Your task to perform on an android device: Open accessibility settings Image 0: 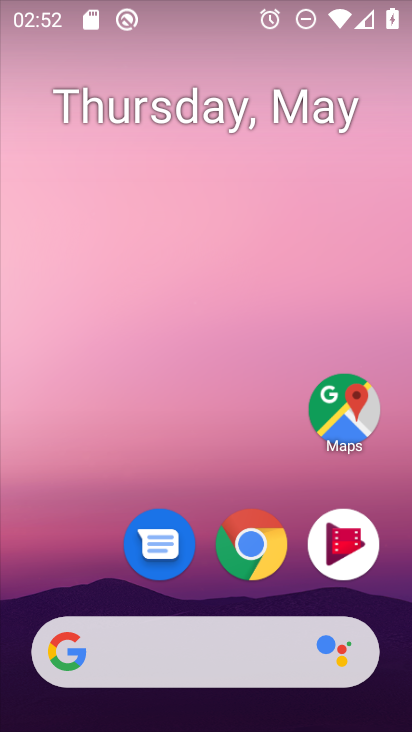
Step 0: drag from (288, 481) to (292, 160)
Your task to perform on an android device: Open accessibility settings Image 1: 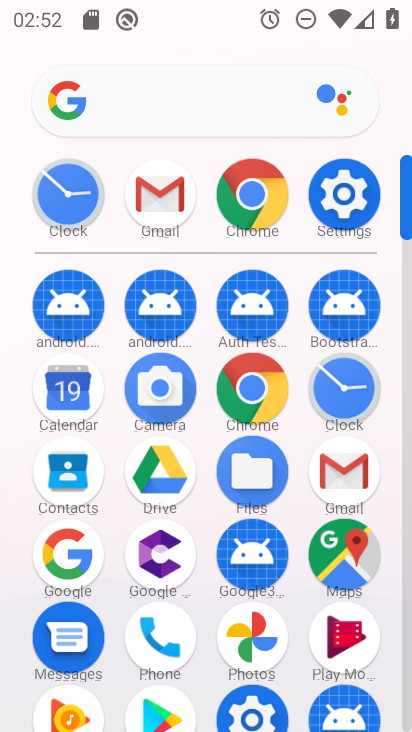
Step 1: click (354, 214)
Your task to perform on an android device: Open accessibility settings Image 2: 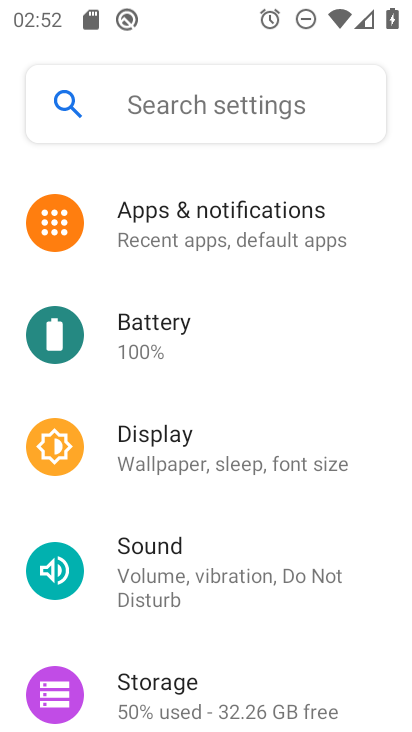
Step 2: drag from (375, 261) to (375, 358)
Your task to perform on an android device: Open accessibility settings Image 3: 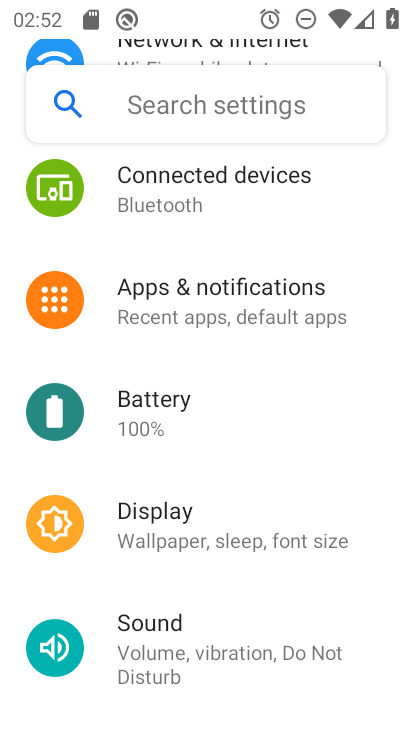
Step 3: drag from (375, 235) to (376, 346)
Your task to perform on an android device: Open accessibility settings Image 4: 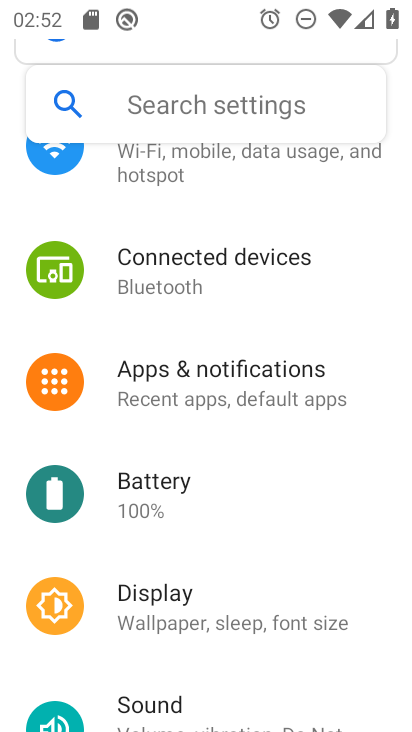
Step 4: drag from (362, 235) to (361, 327)
Your task to perform on an android device: Open accessibility settings Image 5: 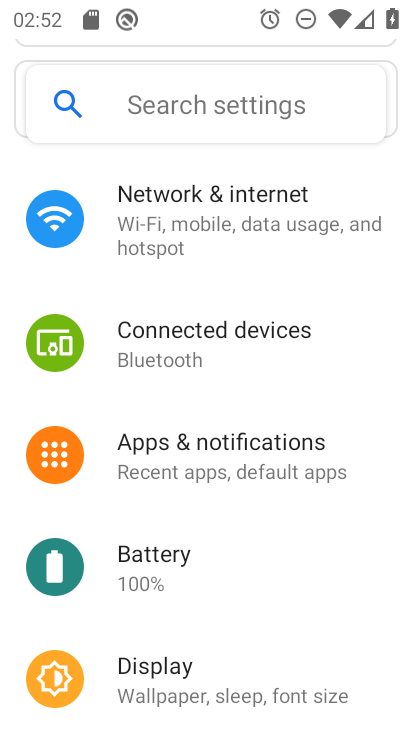
Step 5: drag from (353, 189) to (352, 320)
Your task to perform on an android device: Open accessibility settings Image 6: 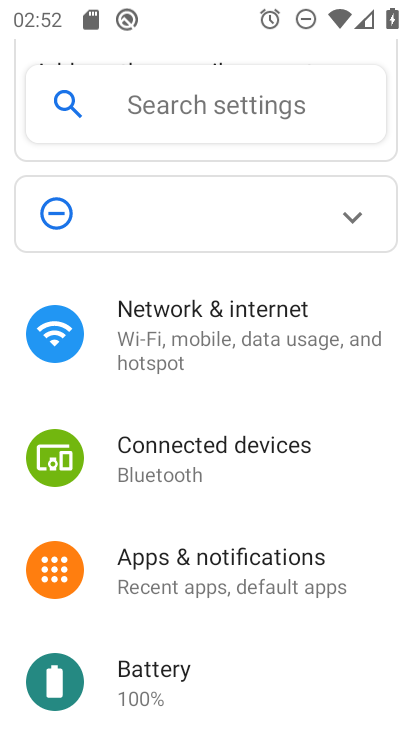
Step 6: drag from (349, 493) to (335, 381)
Your task to perform on an android device: Open accessibility settings Image 7: 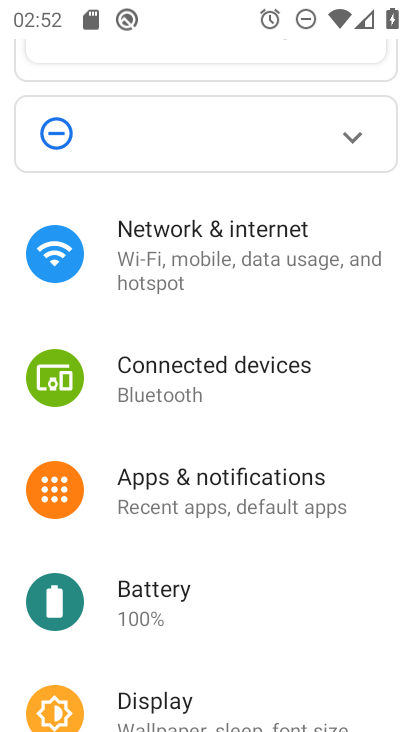
Step 7: drag from (346, 521) to (337, 410)
Your task to perform on an android device: Open accessibility settings Image 8: 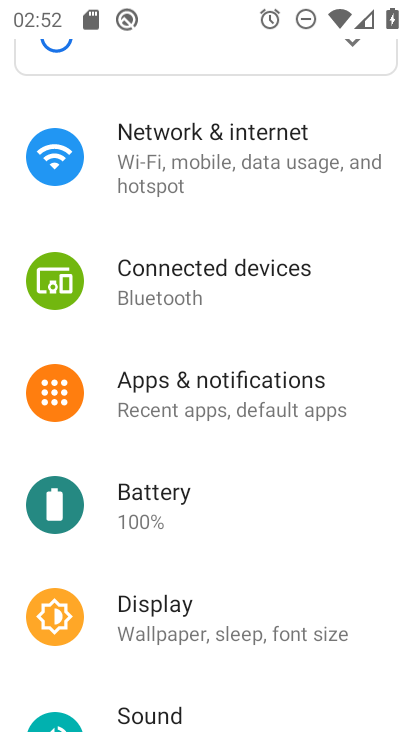
Step 8: drag from (349, 557) to (354, 456)
Your task to perform on an android device: Open accessibility settings Image 9: 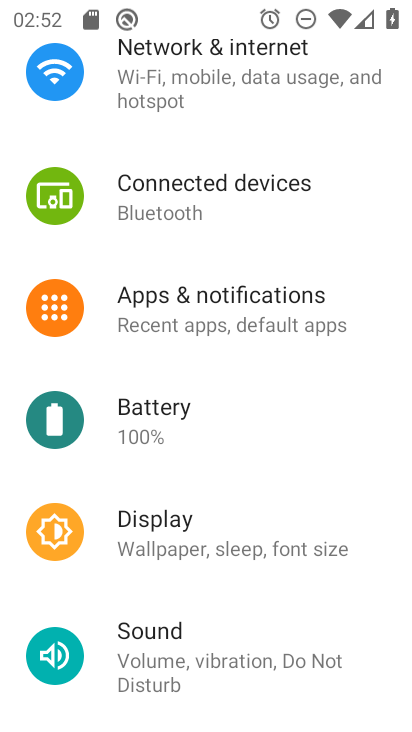
Step 9: drag from (358, 571) to (360, 456)
Your task to perform on an android device: Open accessibility settings Image 10: 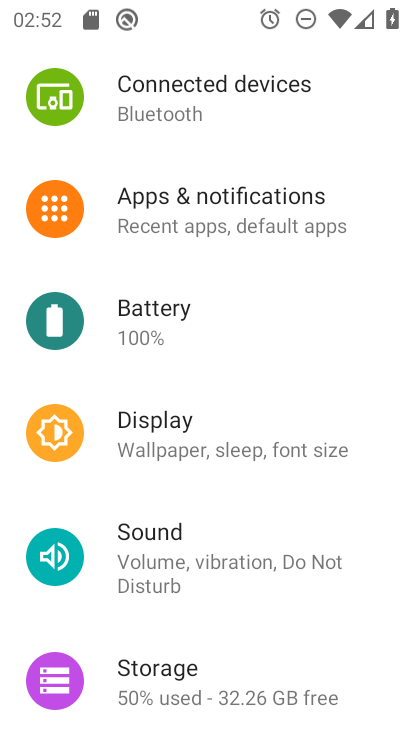
Step 10: drag from (355, 612) to (355, 517)
Your task to perform on an android device: Open accessibility settings Image 11: 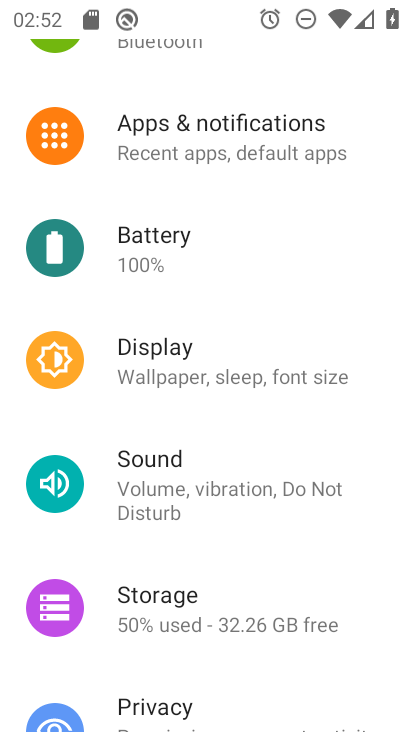
Step 11: drag from (365, 642) to (359, 544)
Your task to perform on an android device: Open accessibility settings Image 12: 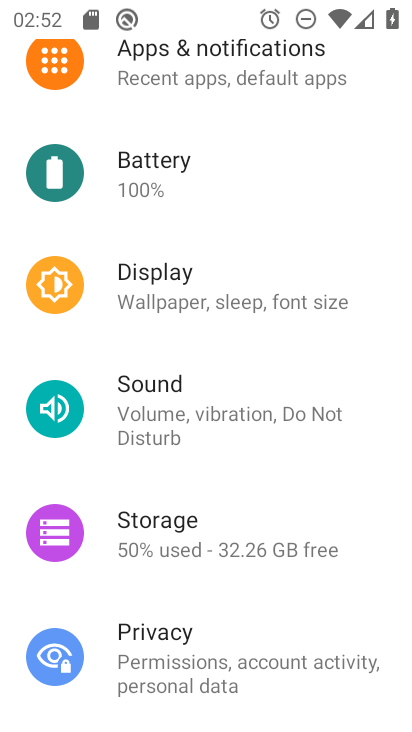
Step 12: drag from (355, 640) to (356, 564)
Your task to perform on an android device: Open accessibility settings Image 13: 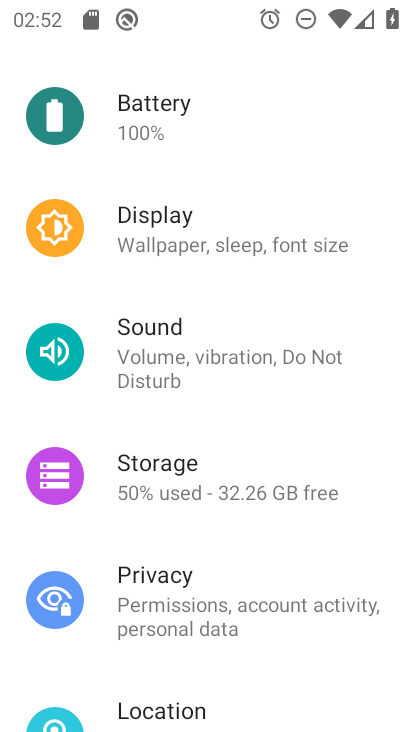
Step 13: drag from (358, 679) to (356, 549)
Your task to perform on an android device: Open accessibility settings Image 14: 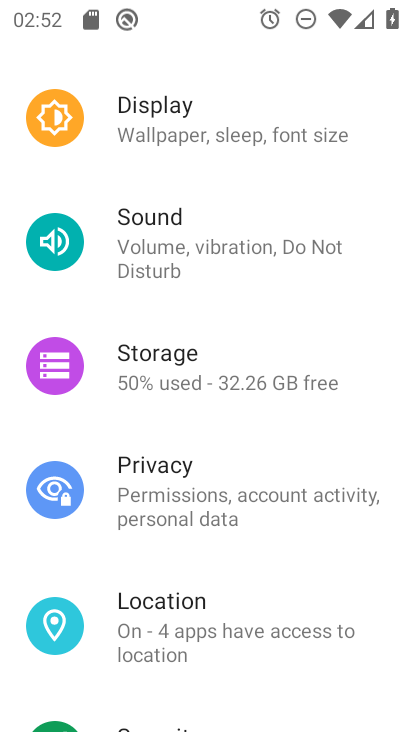
Step 14: drag from (343, 677) to (344, 572)
Your task to perform on an android device: Open accessibility settings Image 15: 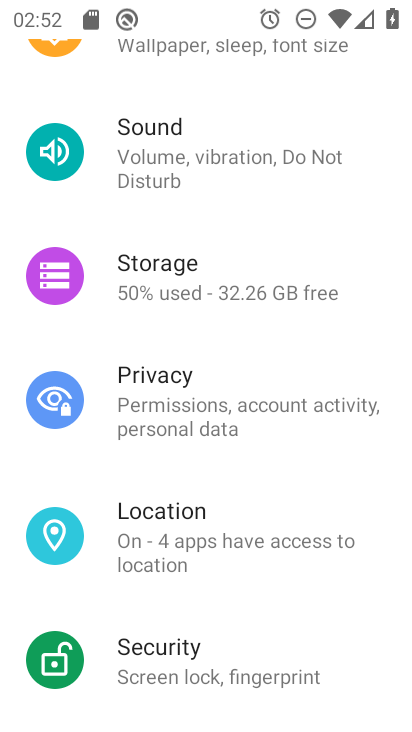
Step 15: drag from (327, 695) to (333, 607)
Your task to perform on an android device: Open accessibility settings Image 16: 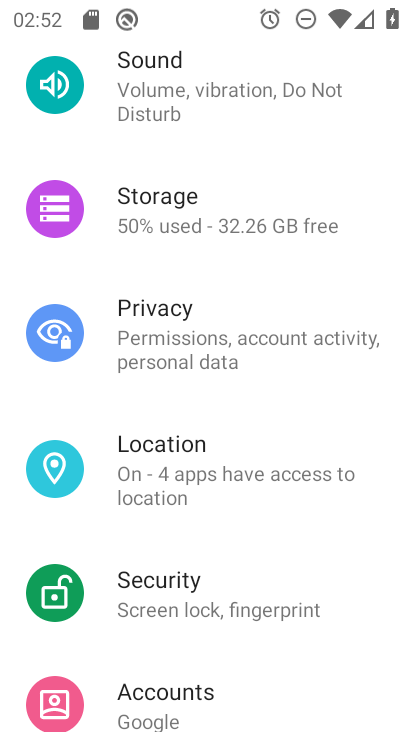
Step 16: drag from (342, 702) to (343, 588)
Your task to perform on an android device: Open accessibility settings Image 17: 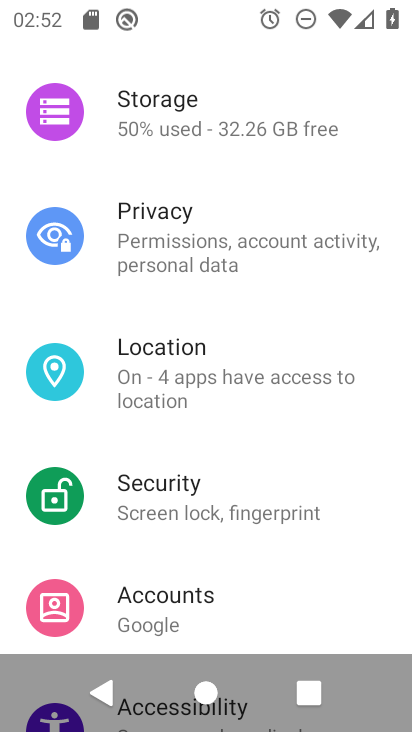
Step 17: drag from (342, 618) to (345, 507)
Your task to perform on an android device: Open accessibility settings Image 18: 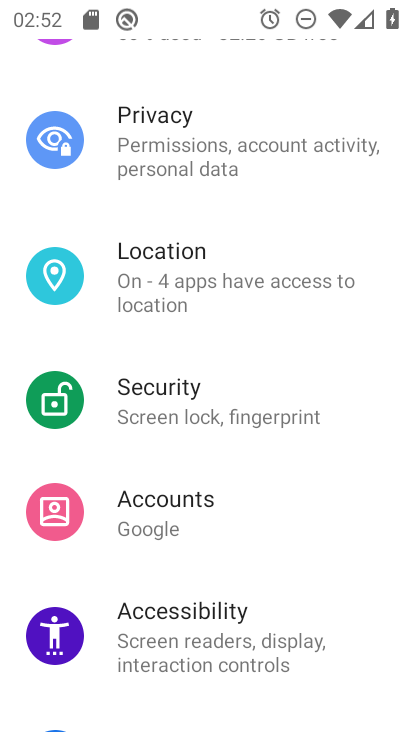
Step 18: drag from (347, 592) to (349, 491)
Your task to perform on an android device: Open accessibility settings Image 19: 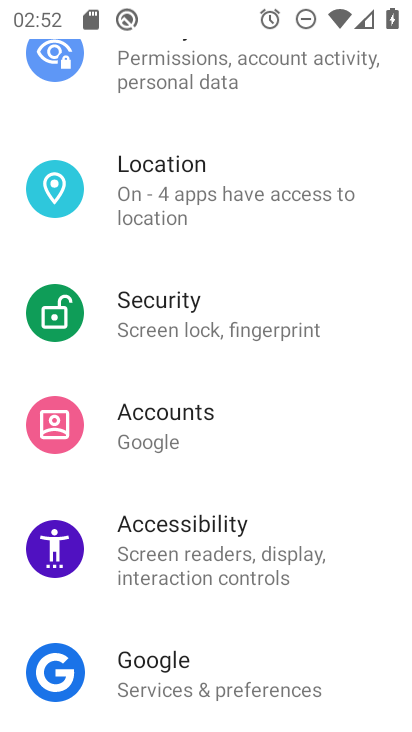
Step 19: click (288, 556)
Your task to perform on an android device: Open accessibility settings Image 20: 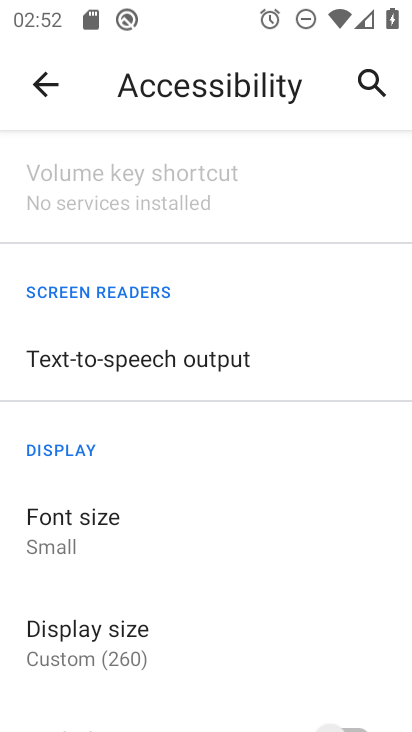
Step 20: task complete